Your task to perform on an android device: open the mobile data screen to see how much data has been used Image 0: 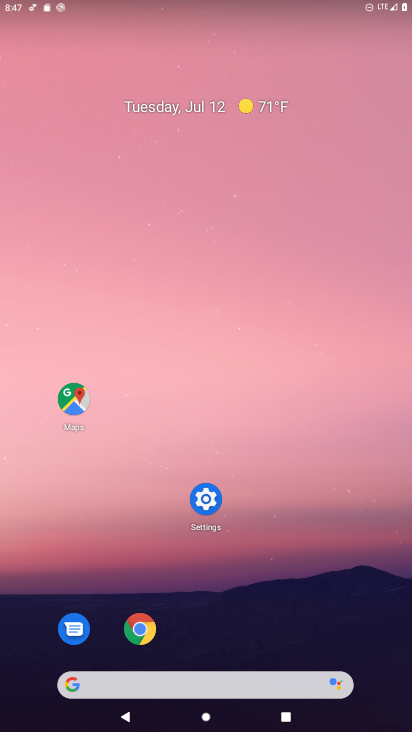
Step 0: click (207, 504)
Your task to perform on an android device: open the mobile data screen to see how much data has been used Image 1: 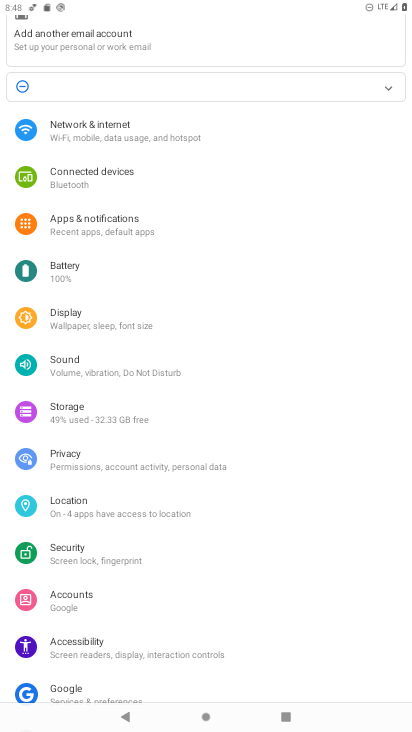
Step 1: click (81, 132)
Your task to perform on an android device: open the mobile data screen to see how much data has been used Image 2: 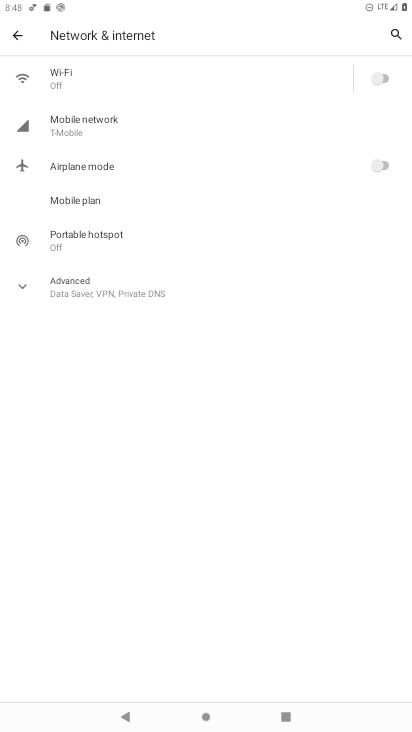
Step 2: click (82, 125)
Your task to perform on an android device: open the mobile data screen to see how much data has been used Image 3: 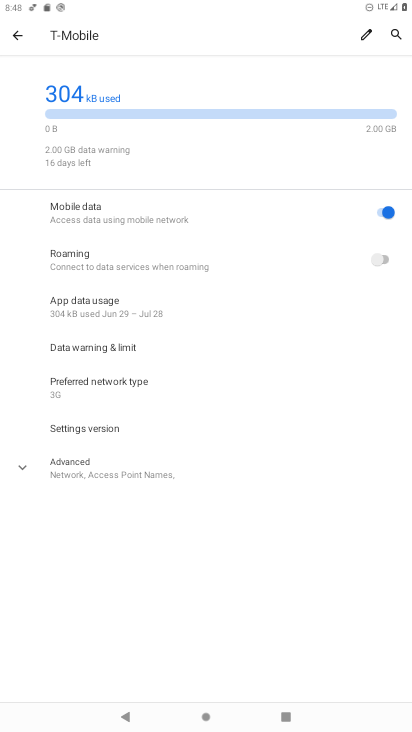
Step 3: task complete